Your task to perform on an android device: change the clock display to analog Image 0: 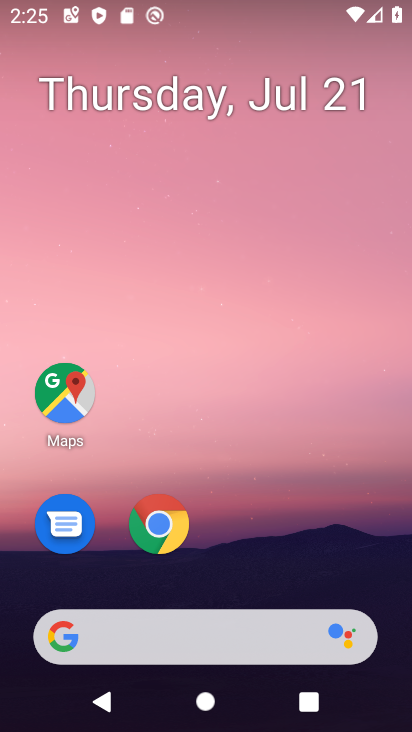
Step 0: drag from (258, 503) to (317, 64)
Your task to perform on an android device: change the clock display to analog Image 1: 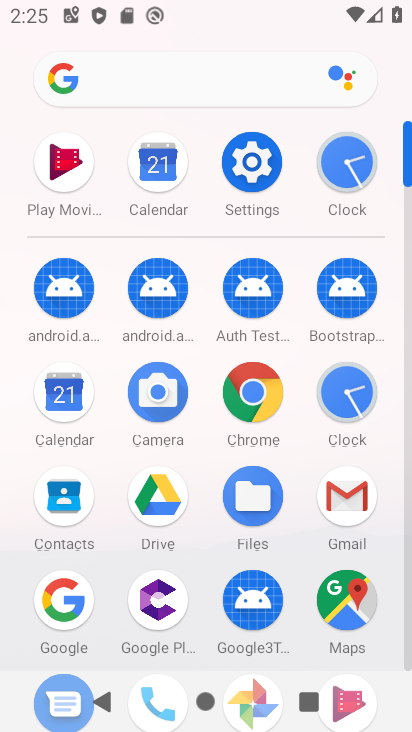
Step 1: click (354, 171)
Your task to perform on an android device: change the clock display to analog Image 2: 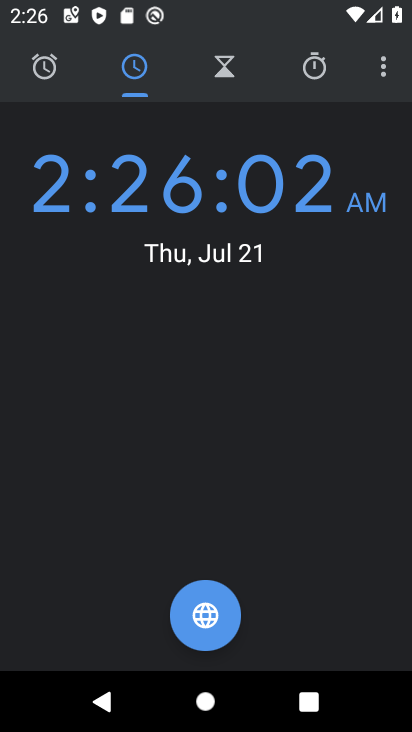
Step 2: click (385, 71)
Your task to perform on an android device: change the clock display to analog Image 3: 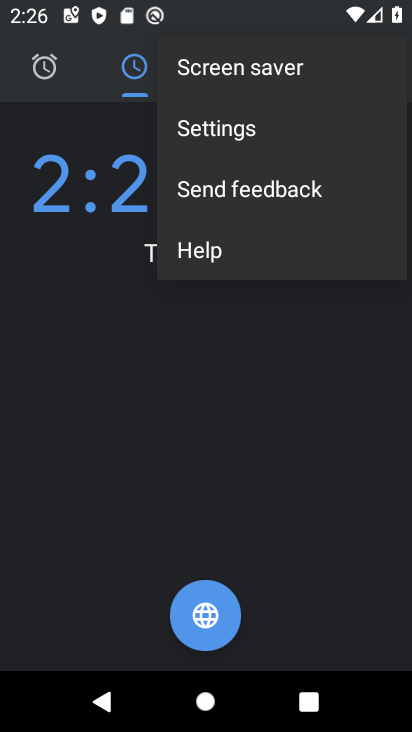
Step 3: click (242, 119)
Your task to perform on an android device: change the clock display to analog Image 4: 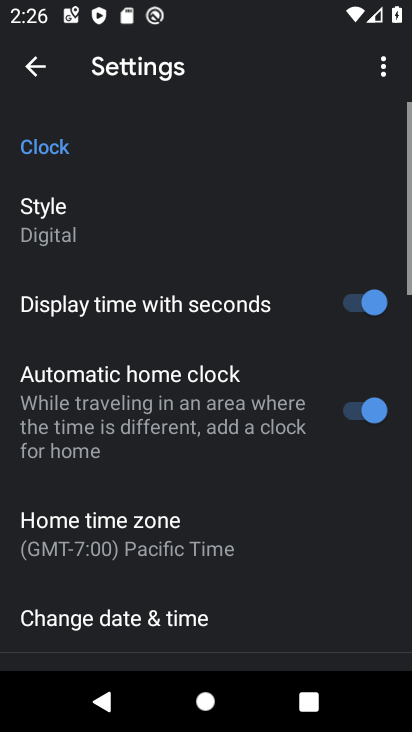
Step 4: click (48, 227)
Your task to perform on an android device: change the clock display to analog Image 5: 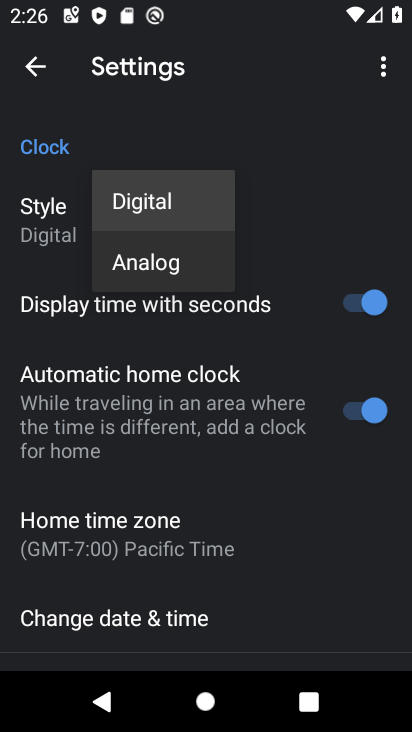
Step 5: click (161, 259)
Your task to perform on an android device: change the clock display to analog Image 6: 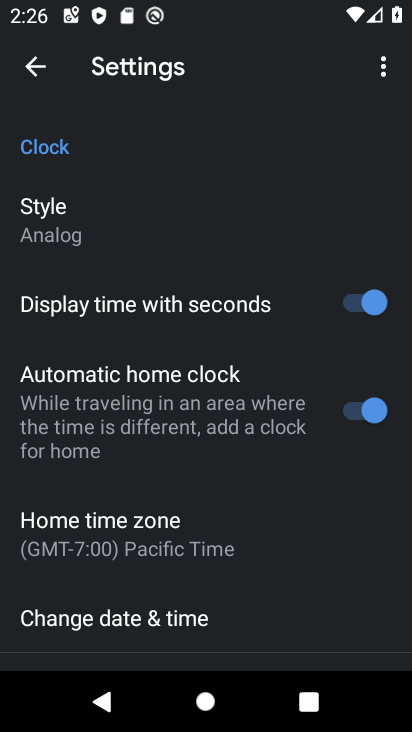
Step 6: click (40, 69)
Your task to perform on an android device: change the clock display to analog Image 7: 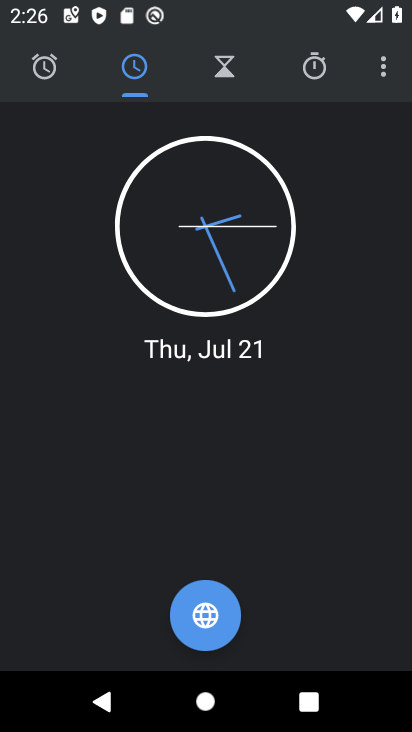
Step 7: task complete